Your task to perform on an android device: Open Wikipedia Image 0: 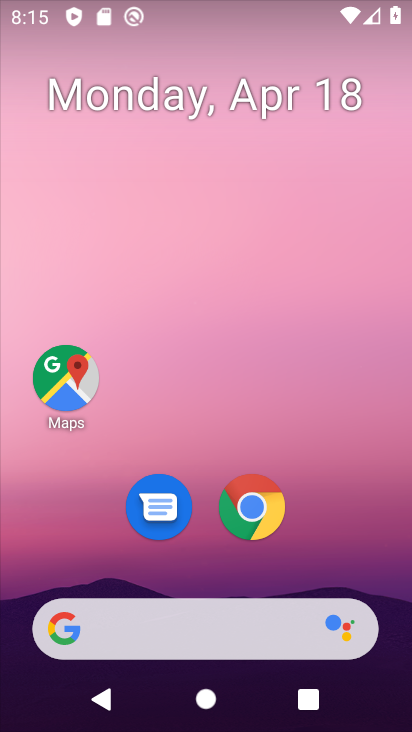
Step 0: click (248, 507)
Your task to perform on an android device: Open Wikipedia Image 1: 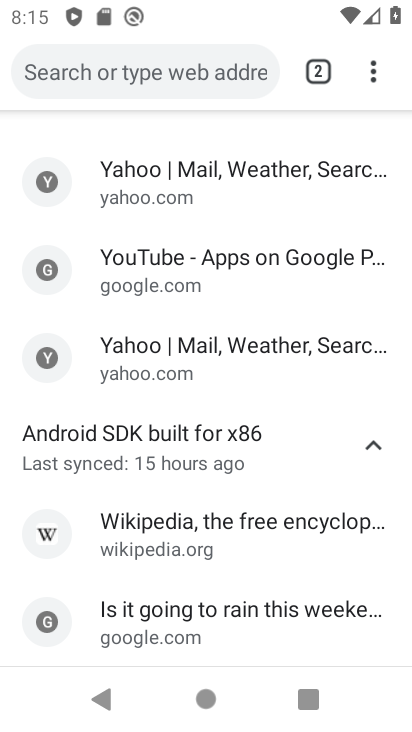
Step 1: click (318, 64)
Your task to perform on an android device: Open Wikipedia Image 2: 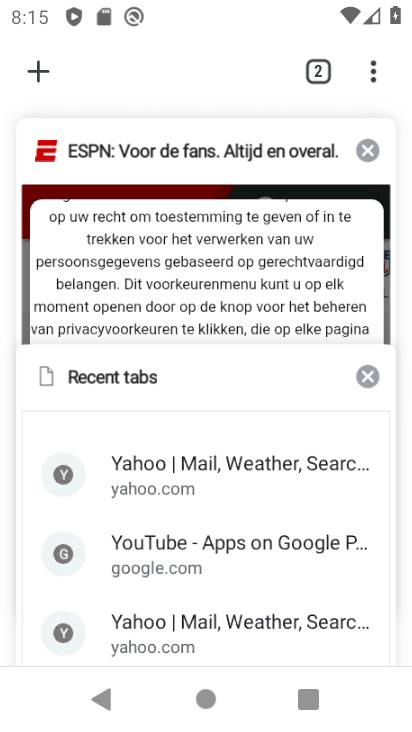
Step 2: click (40, 63)
Your task to perform on an android device: Open Wikipedia Image 3: 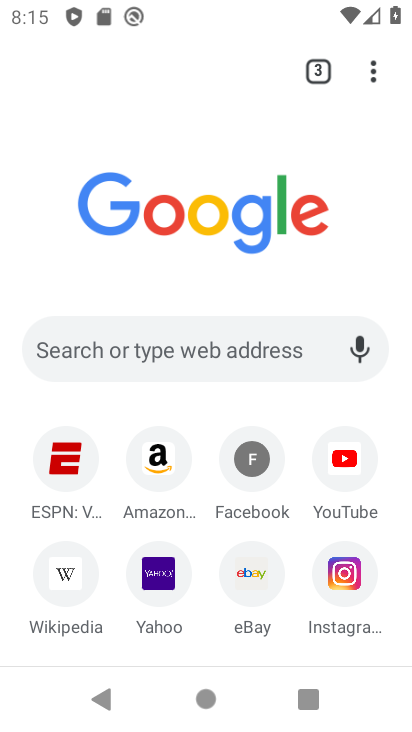
Step 3: click (71, 576)
Your task to perform on an android device: Open Wikipedia Image 4: 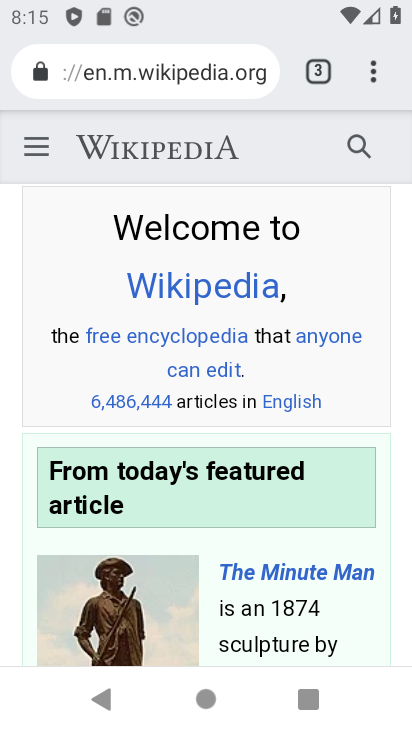
Step 4: task complete